Your task to perform on an android device: turn off translation in the chrome app Image 0: 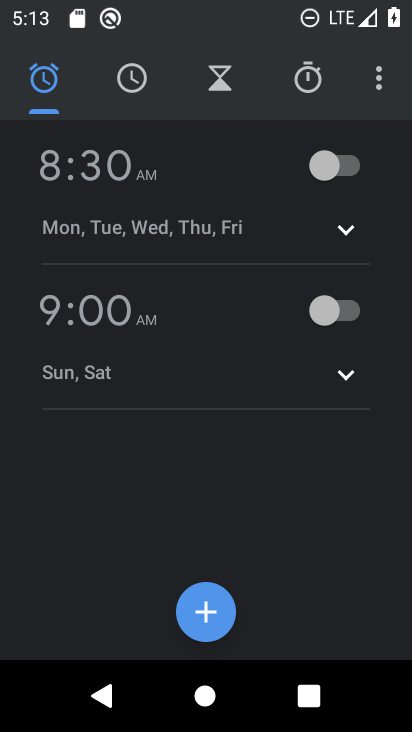
Step 0: press back button
Your task to perform on an android device: turn off translation in the chrome app Image 1: 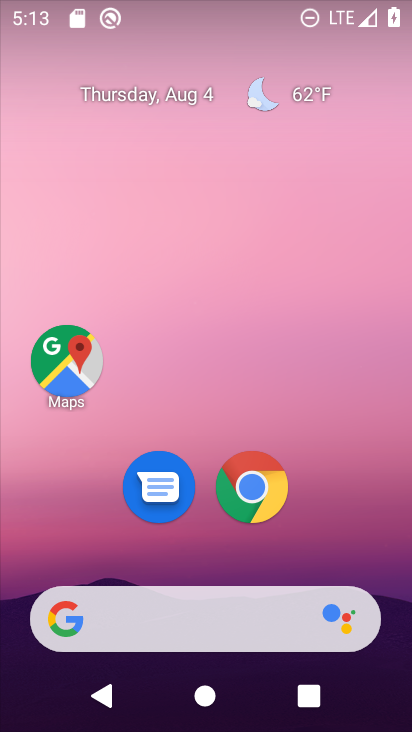
Step 1: click (253, 498)
Your task to perform on an android device: turn off translation in the chrome app Image 2: 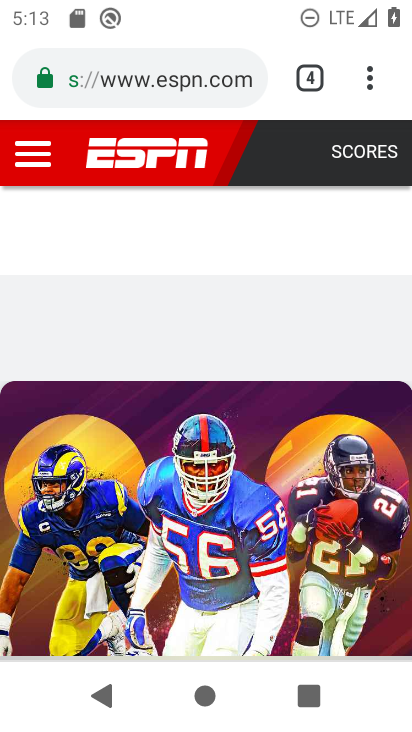
Step 2: drag from (367, 73) to (106, 543)
Your task to perform on an android device: turn off translation in the chrome app Image 3: 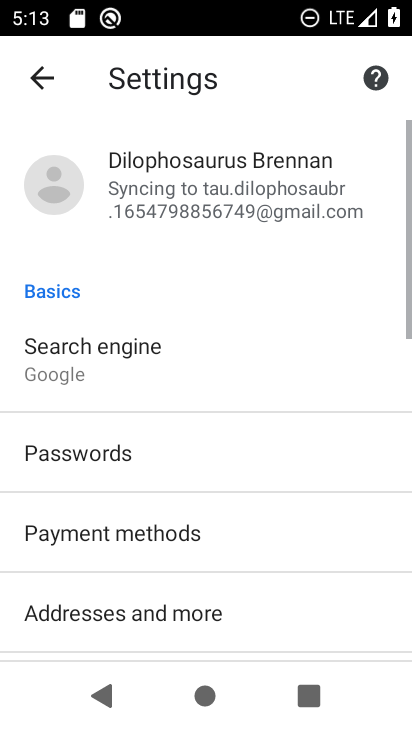
Step 3: drag from (183, 571) to (267, 63)
Your task to perform on an android device: turn off translation in the chrome app Image 4: 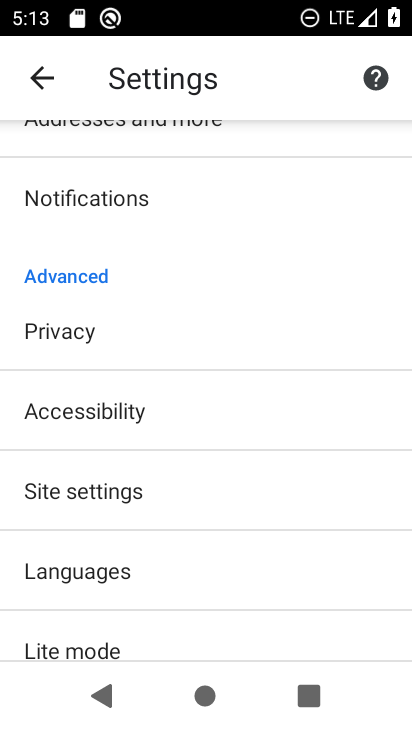
Step 4: click (46, 565)
Your task to perform on an android device: turn off translation in the chrome app Image 5: 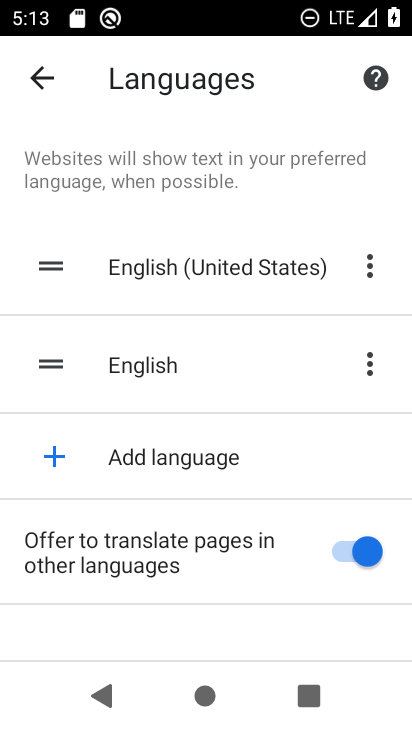
Step 5: click (373, 541)
Your task to perform on an android device: turn off translation in the chrome app Image 6: 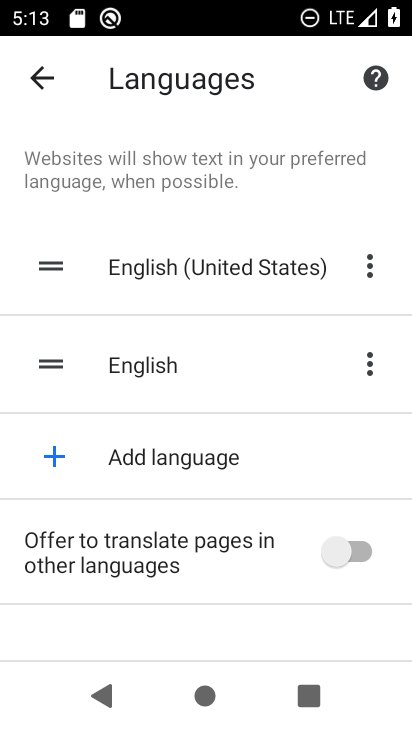
Step 6: task complete